Your task to perform on an android device: Go to calendar. Show me events next week Image 0: 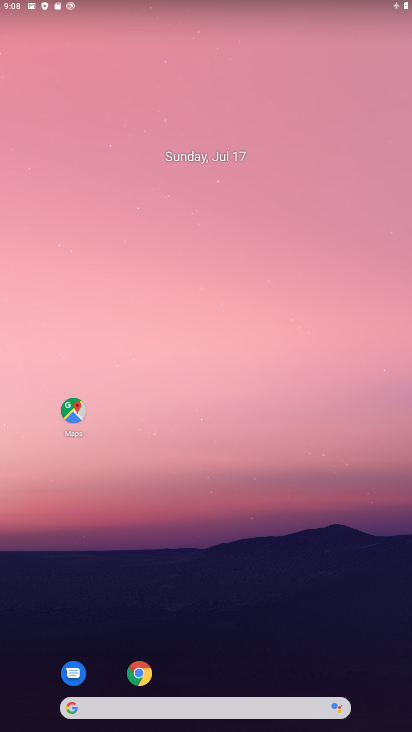
Step 0: drag from (403, 719) to (362, 183)
Your task to perform on an android device: Go to calendar. Show me events next week Image 1: 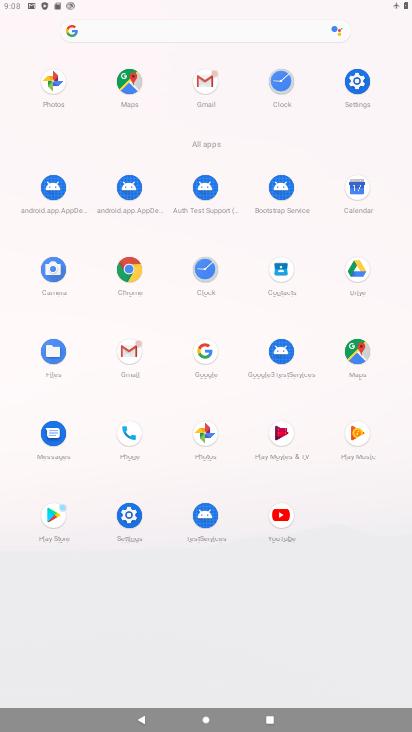
Step 1: click (356, 191)
Your task to perform on an android device: Go to calendar. Show me events next week Image 2: 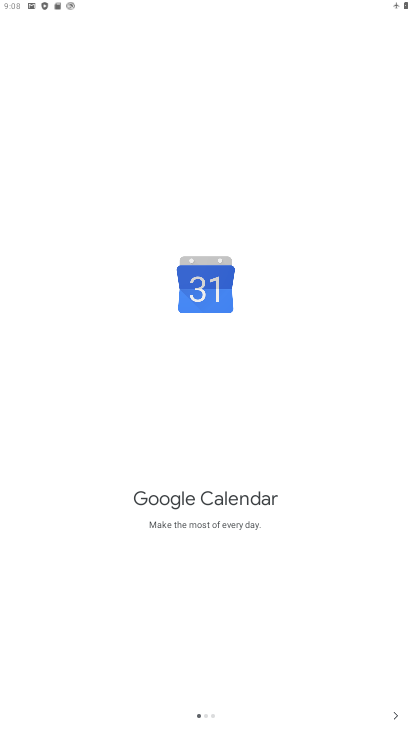
Step 2: click (391, 718)
Your task to perform on an android device: Go to calendar. Show me events next week Image 3: 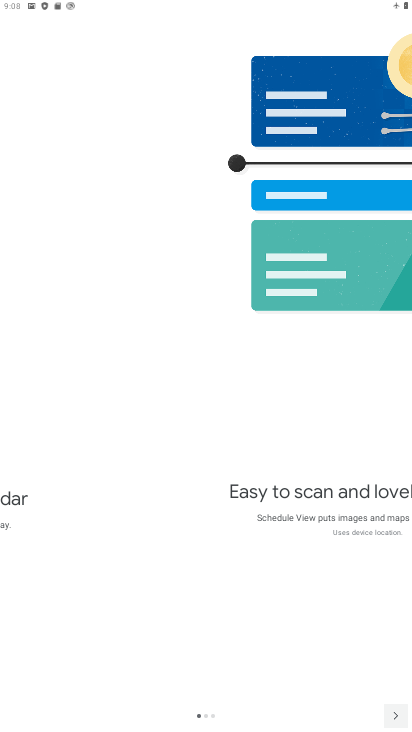
Step 3: click (391, 718)
Your task to perform on an android device: Go to calendar. Show me events next week Image 4: 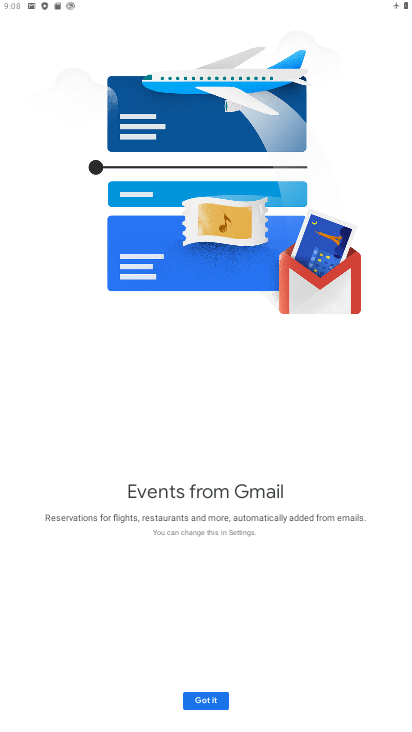
Step 4: click (206, 703)
Your task to perform on an android device: Go to calendar. Show me events next week Image 5: 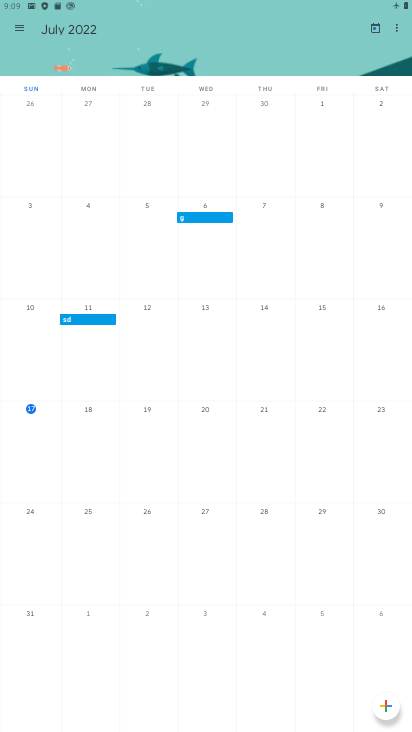
Step 5: click (19, 22)
Your task to perform on an android device: Go to calendar. Show me events next week Image 6: 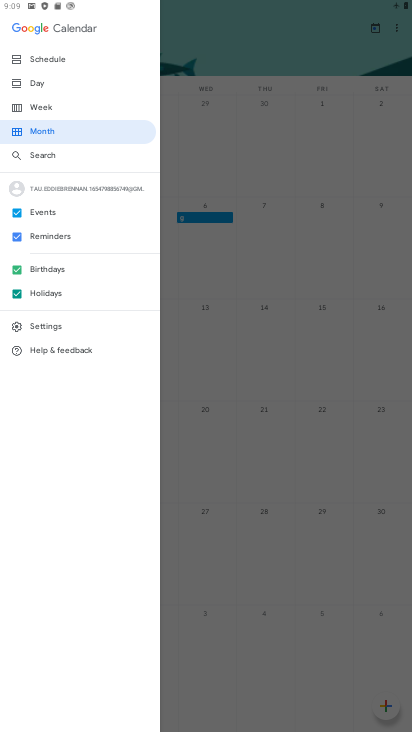
Step 6: click (38, 103)
Your task to perform on an android device: Go to calendar. Show me events next week Image 7: 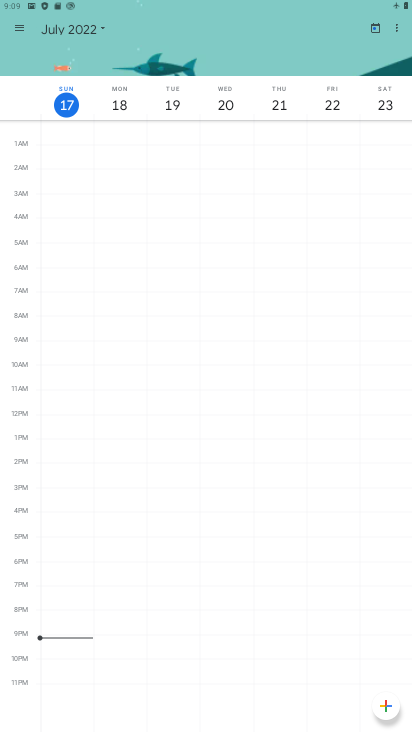
Step 7: click (104, 26)
Your task to perform on an android device: Go to calendar. Show me events next week Image 8: 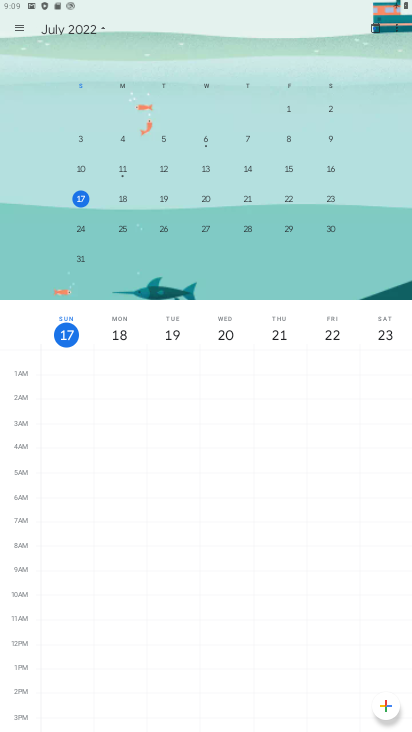
Step 8: click (78, 229)
Your task to perform on an android device: Go to calendar. Show me events next week Image 9: 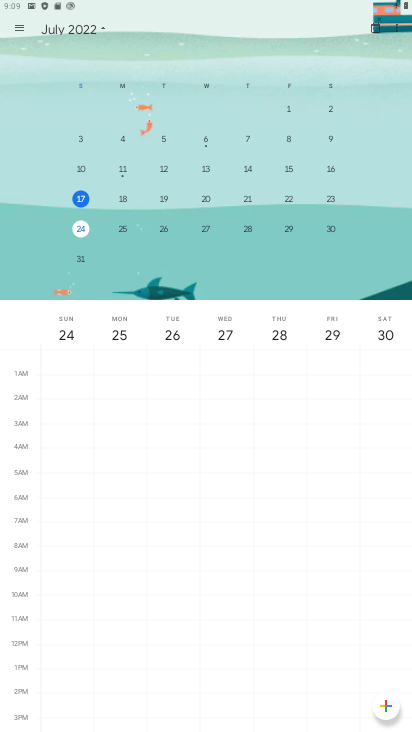
Step 9: task complete